Your task to perform on an android device: change the clock display to show seconds Image 0: 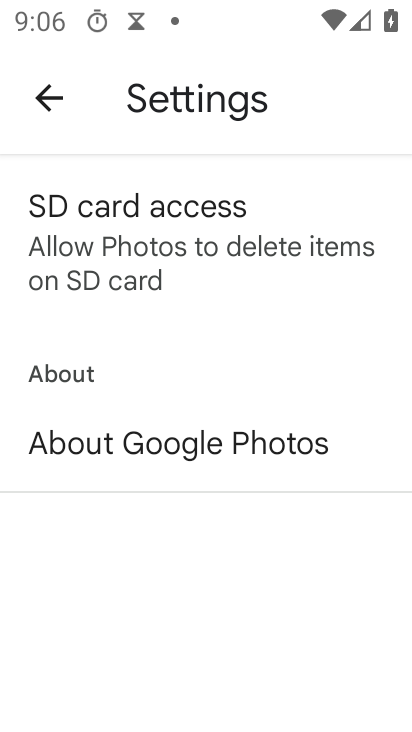
Step 0: press home button
Your task to perform on an android device: change the clock display to show seconds Image 1: 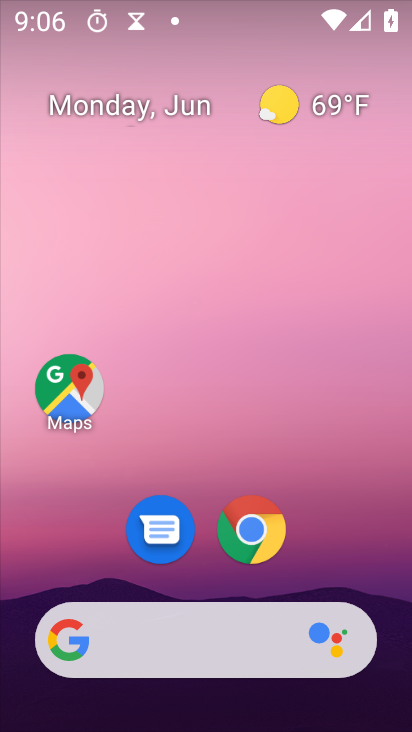
Step 1: drag from (330, 539) to (277, 42)
Your task to perform on an android device: change the clock display to show seconds Image 2: 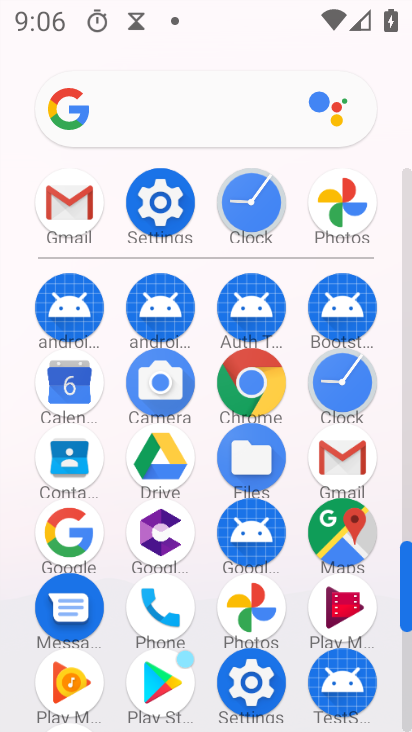
Step 2: click (239, 197)
Your task to perform on an android device: change the clock display to show seconds Image 3: 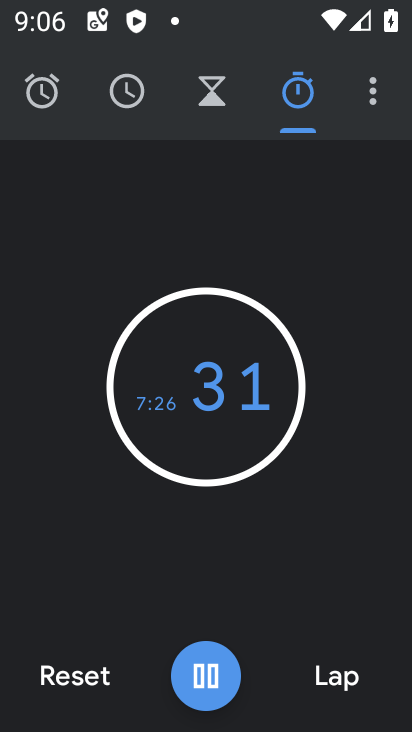
Step 3: click (379, 93)
Your task to perform on an android device: change the clock display to show seconds Image 4: 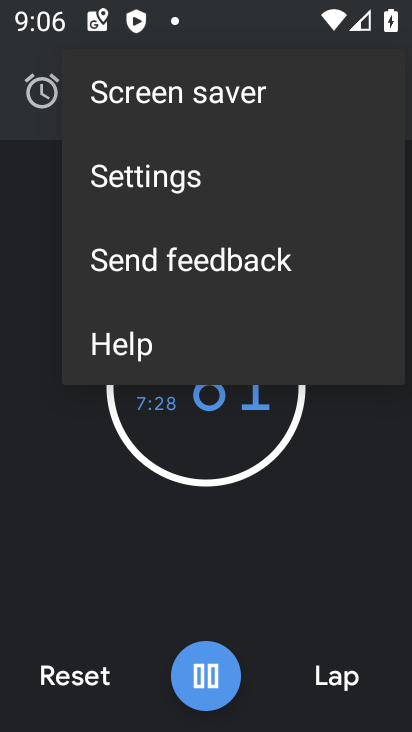
Step 4: click (248, 177)
Your task to perform on an android device: change the clock display to show seconds Image 5: 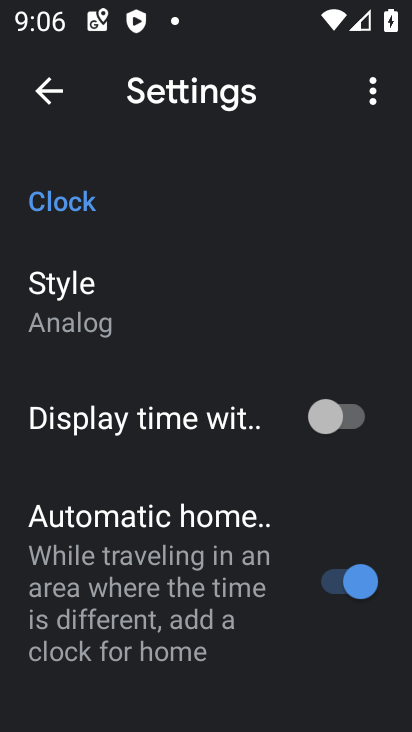
Step 5: drag from (197, 539) to (243, 99)
Your task to perform on an android device: change the clock display to show seconds Image 6: 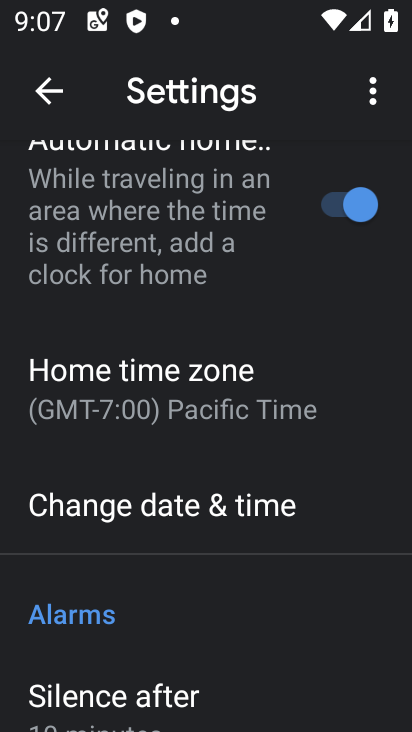
Step 6: drag from (198, 582) to (231, 155)
Your task to perform on an android device: change the clock display to show seconds Image 7: 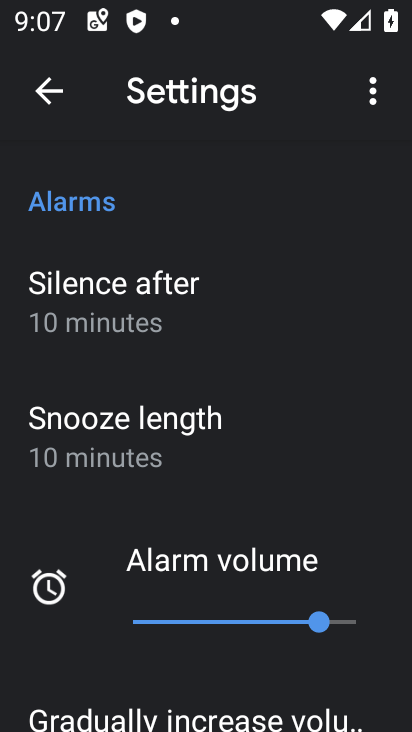
Step 7: drag from (233, 183) to (203, 729)
Your task to perform on an android device: change the clock display to show seconds Image 8: 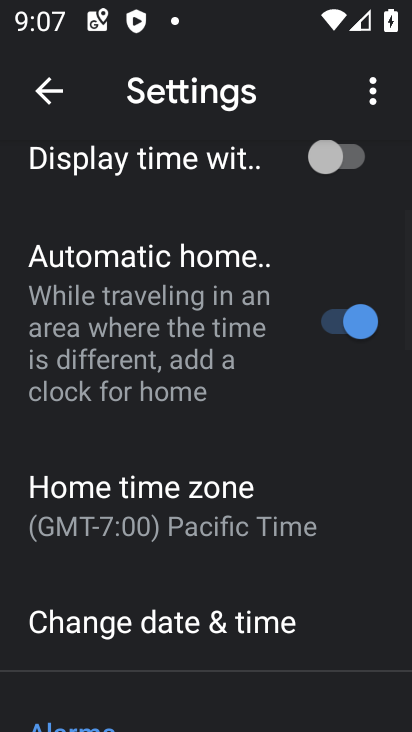
Step 8: drag from (231, 194) to (213, 588)
Your task to perform on an android device: change the clock display to show seconds Image 9: 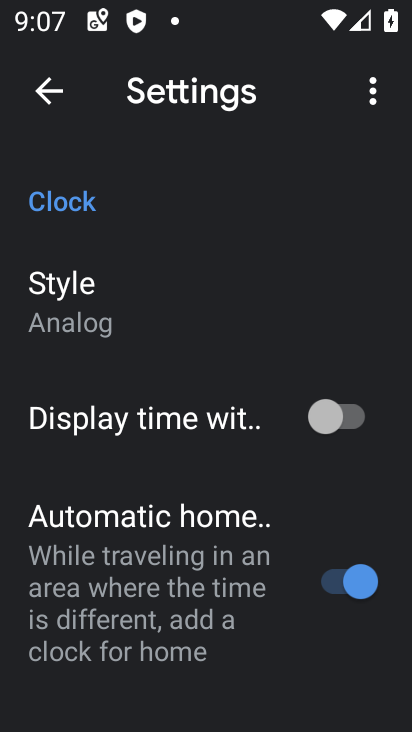
Step 9: click (217, 425)
Your task to perform on an android device: change the clock display to show seconds Image 10: 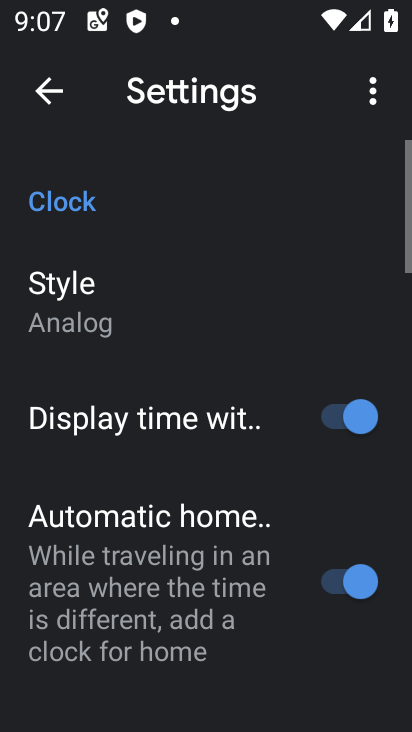
Step 10: click (220, 420)
Your task to perform on an android device: change the clock display to show seconds Image 11: 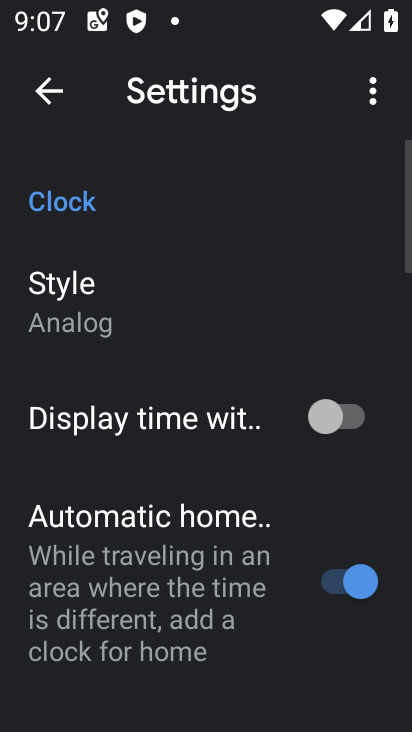
Step 11: drag from (255, 687) to (251, 278)
Your task to perform on an android device: change the clock display to show seconds Image 12: 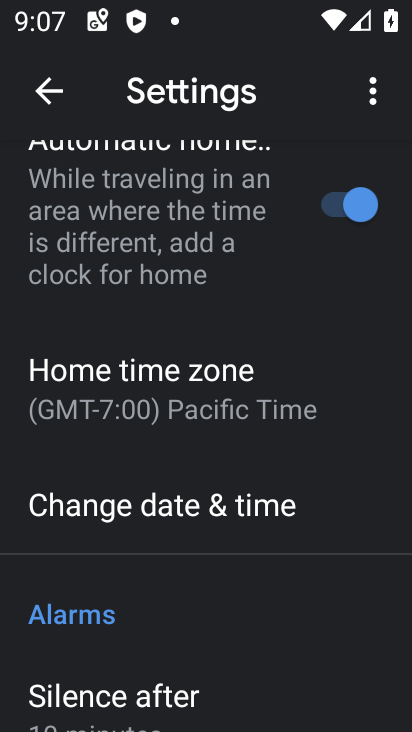
Step 12: drag from (254, 573) to (240, 206)
Your task to perform on an android device: change the clock display to show seconds Image 13: 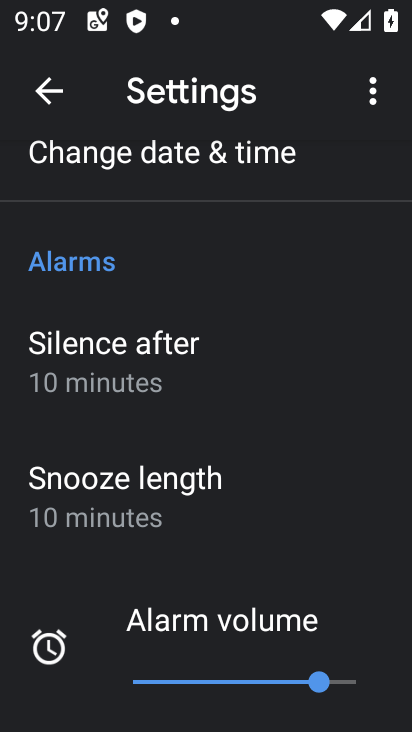
Step 13: drag from (187, 509) to (186, 115)
Your task to perform on an android device: change the clock display to show seconds Image 14: 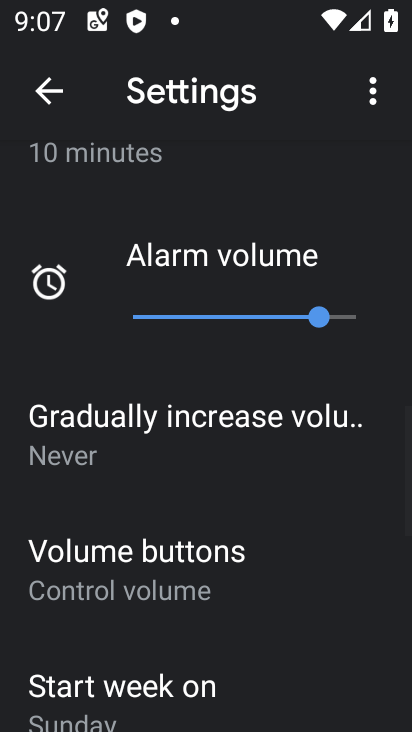
Step 14: drag from (149, 576) to (223, 97)
Your task to perform on an android device: change the clock display to show seconds Image 15: 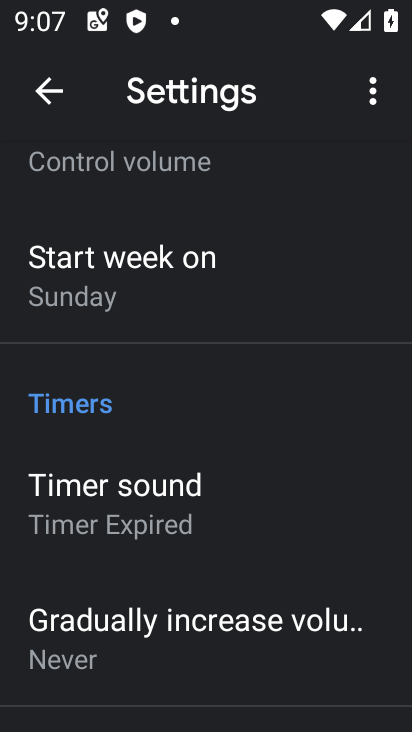
Step 15: drag from (209, 605) to (237, 183)
Your task to perform on an android device: change the clock display to show seconds Image 16: 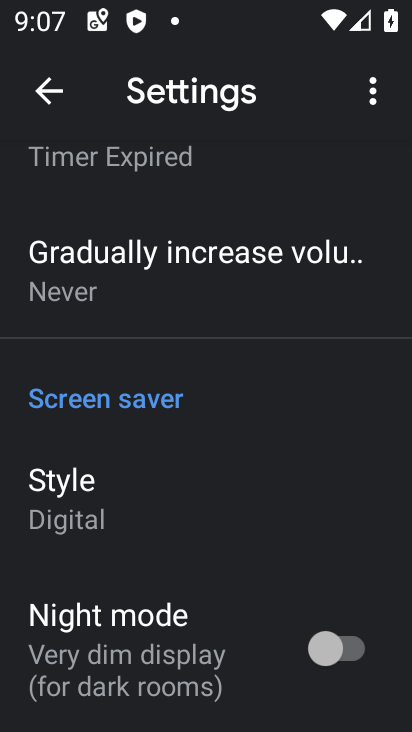
Step 16: drag from (161, 628) to (220, 181)
Your task to perform on an android device: change the clock display to show seconds Image 17: 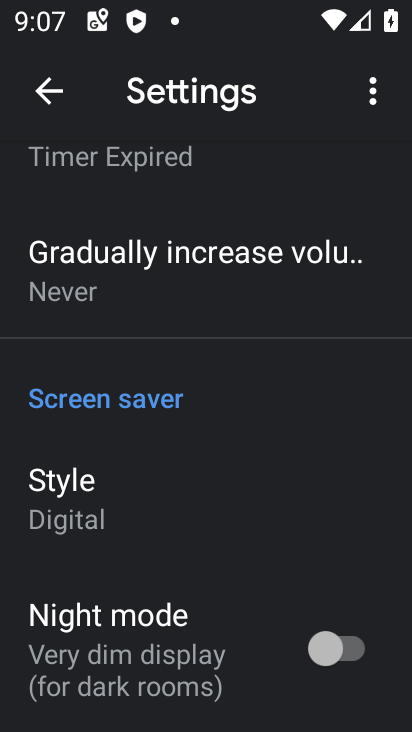
Step 17: click (366, 88)
Your task to perform on an android device: change the clock display to show seconds Image 18: 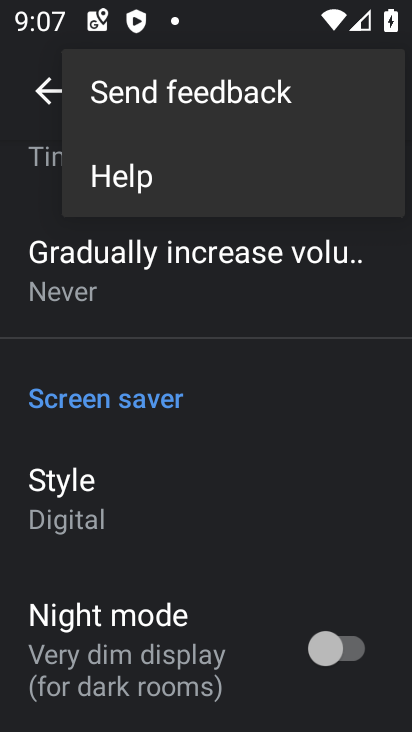
Step 18: press home button
Your task to perform on an android device: change the clock display to show seconds Image 19: 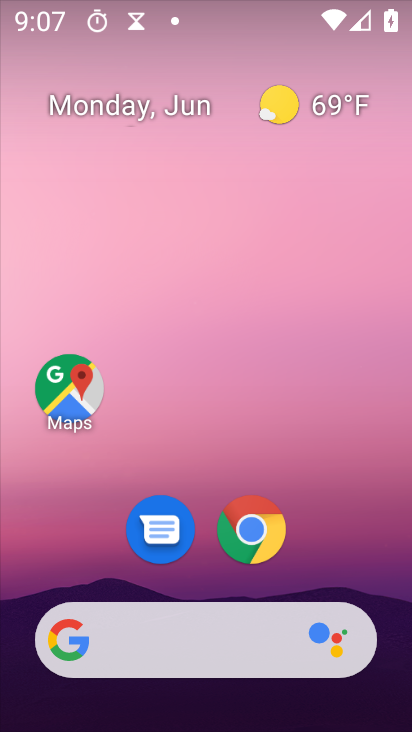
Step 19: drag from (326, 527) to (284, 17)
Your task to perform on an android device: change the clock display to show seconds Image 20: 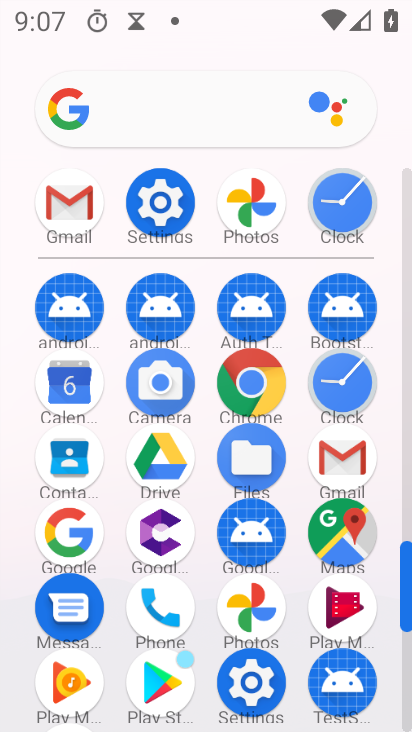
Step 20: click (159, 202)
Your task to perform on an android device: change the clock display to show seconds Image 21: 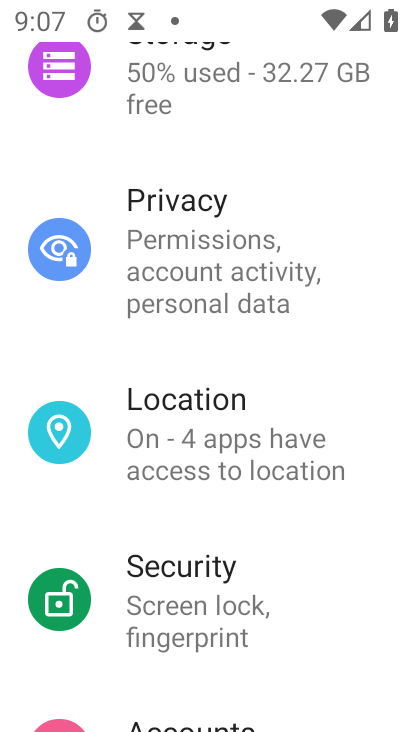
Step 21: drag from (286, 190) to (267, 643)
Your task to perform on an android device: change the clock display to show seconds Image 22: 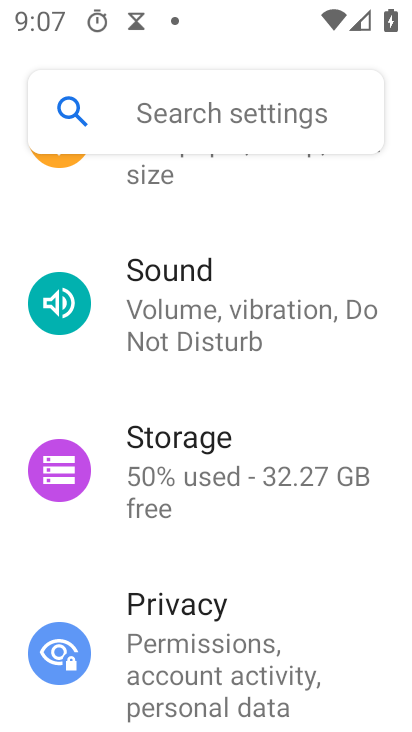
Step 22: click (233, 185)
Your task to perform on an android device: change the clock display to show seconds Image 23: 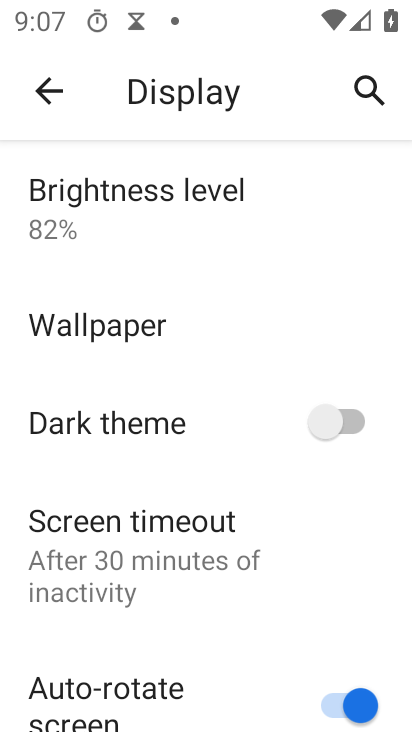
Step 23: drag from (181, 552) to (161, 180)
Your task to perform on an android device: change the clock display to show seconds Image 24: 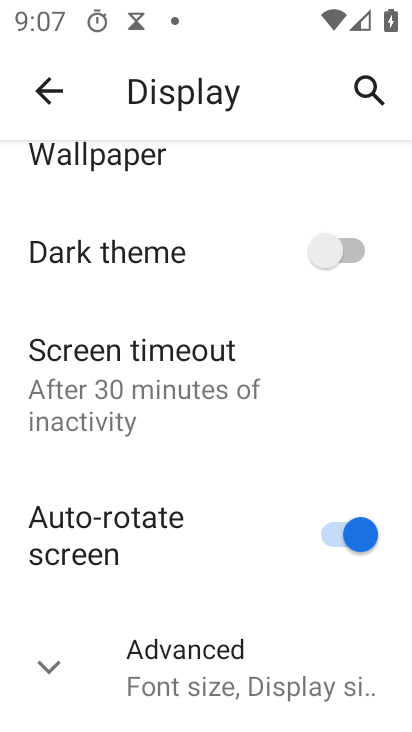
Step 24: click (190, 647)
Your task to perform on an android device: change the clock display to show seconds Image 25: 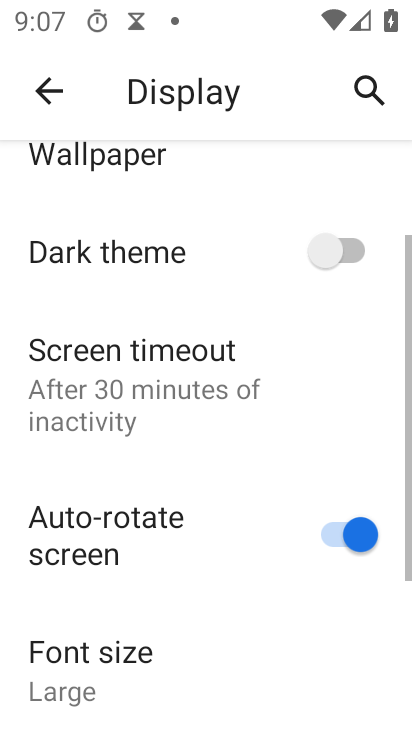
Step 25: drag from (190, 661) to (184, 101)
Your task to perform on an android device: change the clock display to show seconds Image 26: 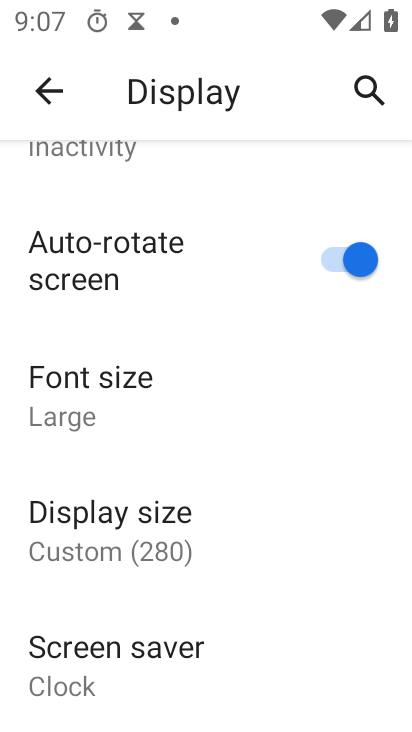
Step 26: click (129, 677)
Your task to perform on an android device: change the clock display to show seconds Image 27: 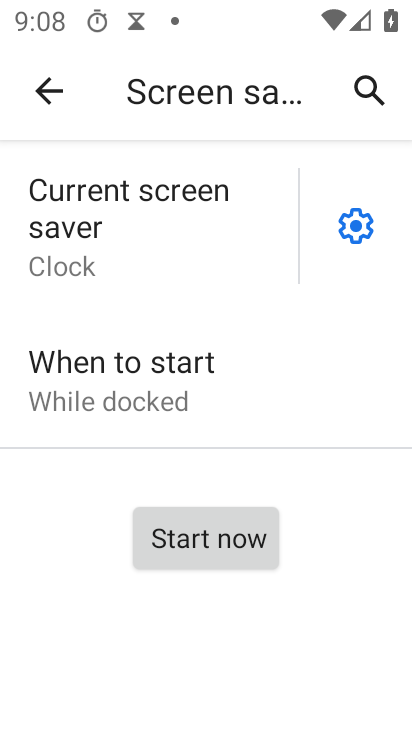
Step 27: task complete